Your task to perform on an android device: show emergency info Image 0: 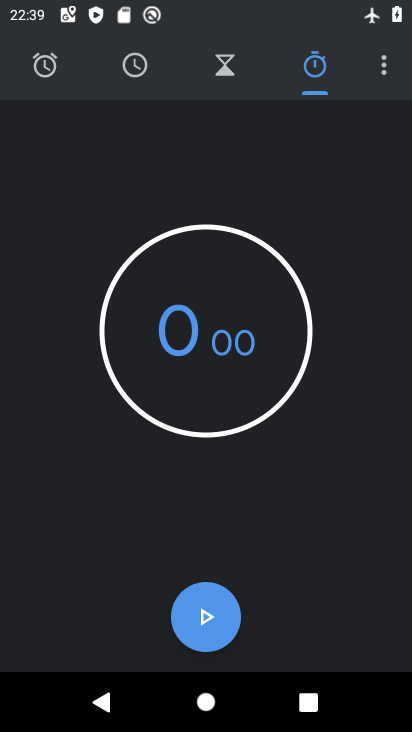
Step 0: press home button
Your task to perform on an android device: show emergency info Image 1: 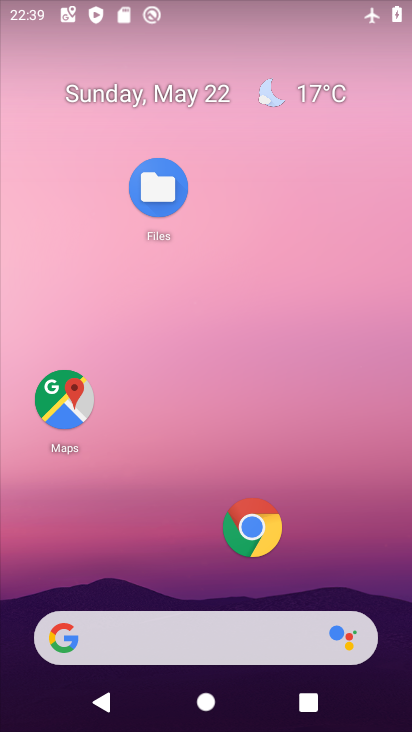
Step 1: drag from (148, 557) to (135, 97)
Your task to perform on an android device: show emergency info Image 2: 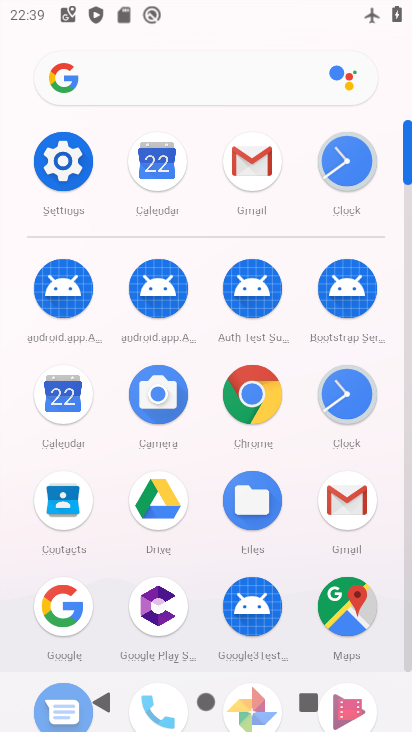
Step 2: click (54, 172)
Your task to perform on an android device: show emergency info Image 3: 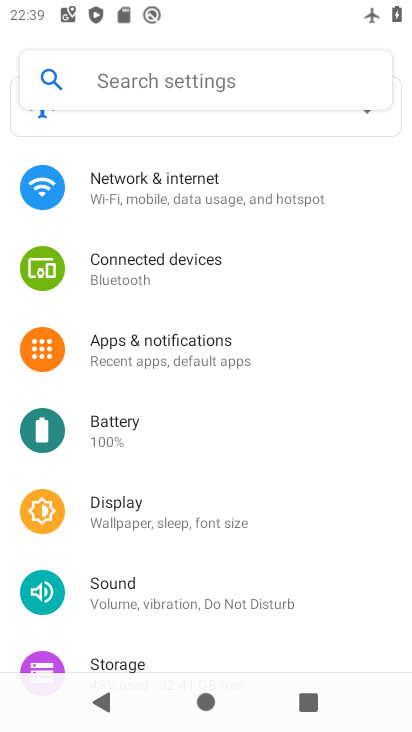
Step 3: drag from (252, 596) to (159, 99)
Your task to perform on an android device: show emergency info Image 4: 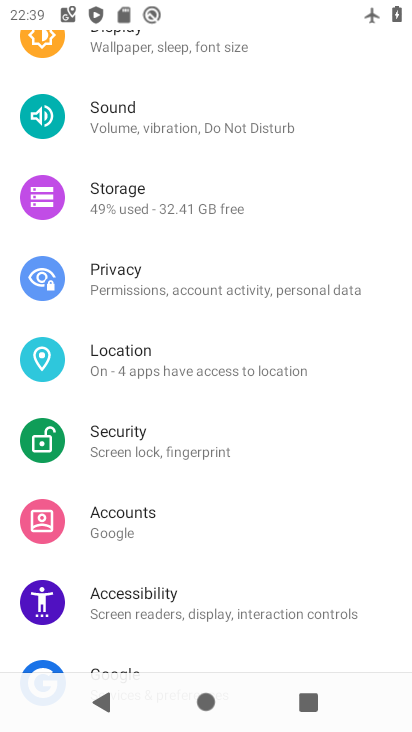
Step 4: drag from (233, 516) to (229, 94)
Your task to perform on an android device: show emergency info Image 5: 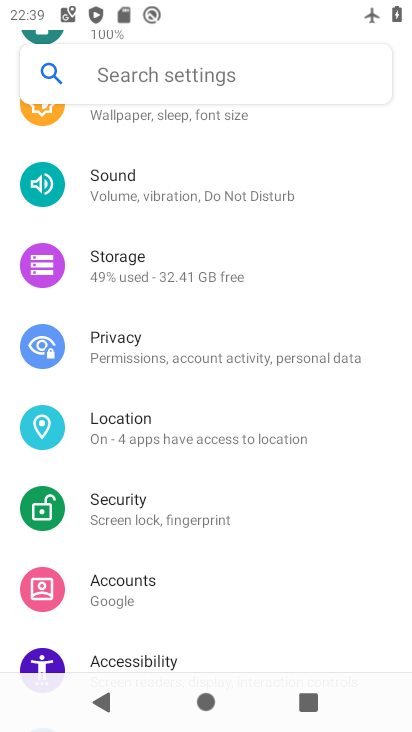
Step 5: drag from (195, 586) to (169, 185)
Your task to perform on an android device: show emergency info Image 6: 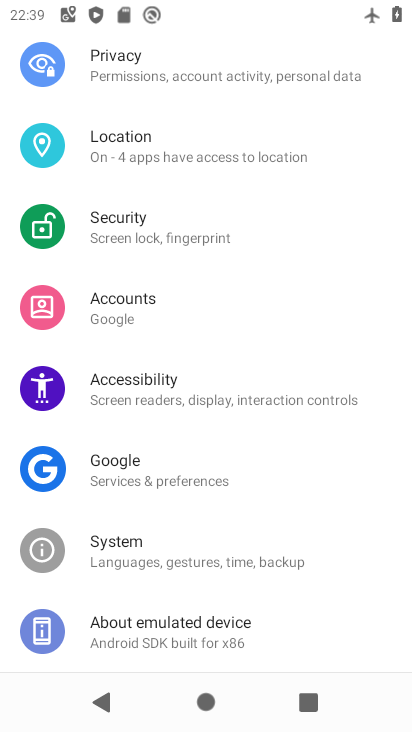
Step 6: drag from (189, 588) to (189, 146)
Your task to perform on an android device: show emergency info Image 7: 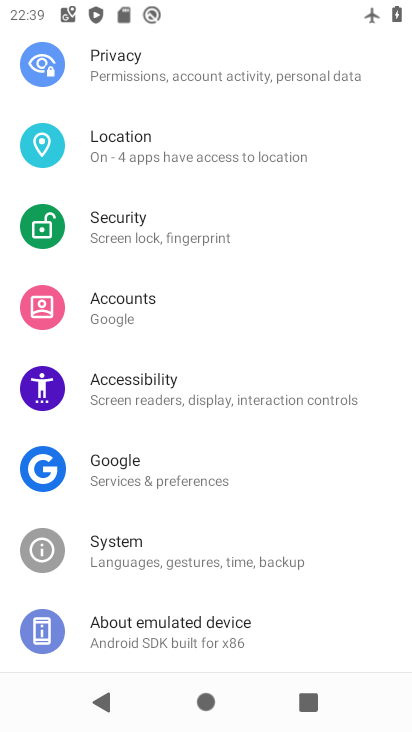
Step 7: click (145, 632)
Your task to perform on an android device: show emergency info Image 8: 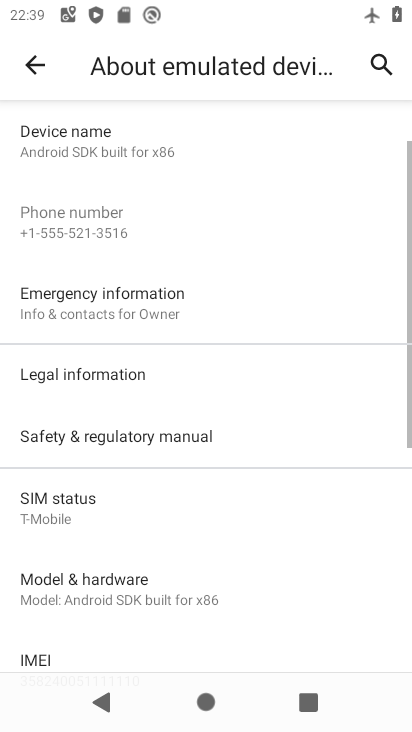
Step 8: click (131, 288)
Your task to perform on an android device: show emergency info Image 9: 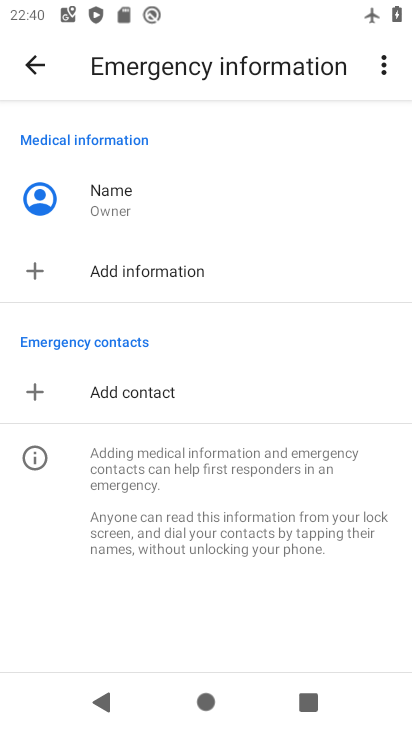
Step 9: task complete